Your task to perform on an android device: toggle notifications settings in the gmail app Image 0: 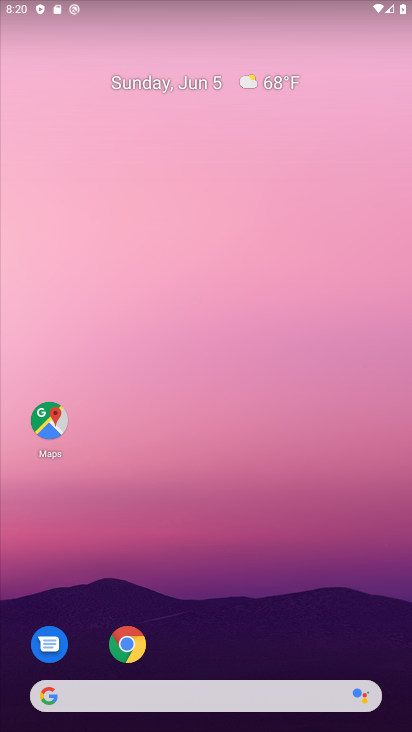
Step 0: task complete